Your task to perform on an android device: open device folders in google photos Image 0: 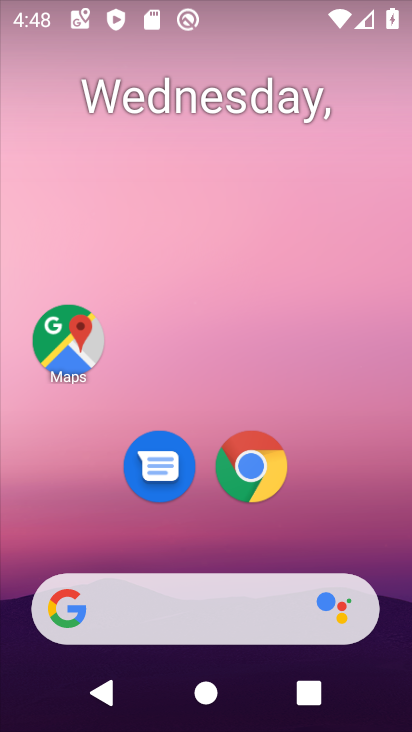
Step 0: drag from (392, 596) to (317, 225)
Your task to perform on an android device: open device folders in google photos Image 1: 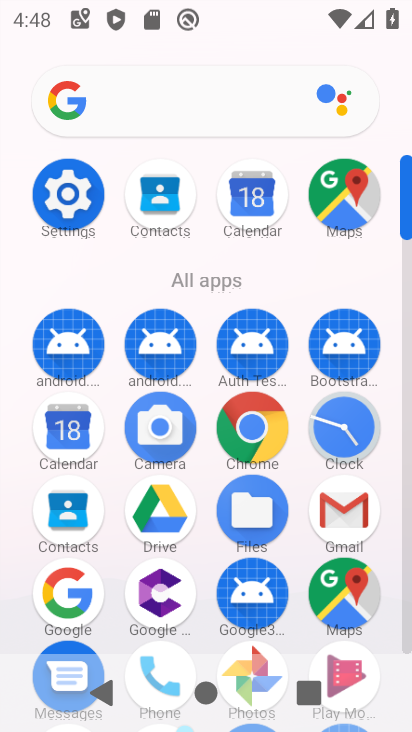
Step 1: click (406, 628)
Your task to perform on an android device: open device folders in google photos Image 2: 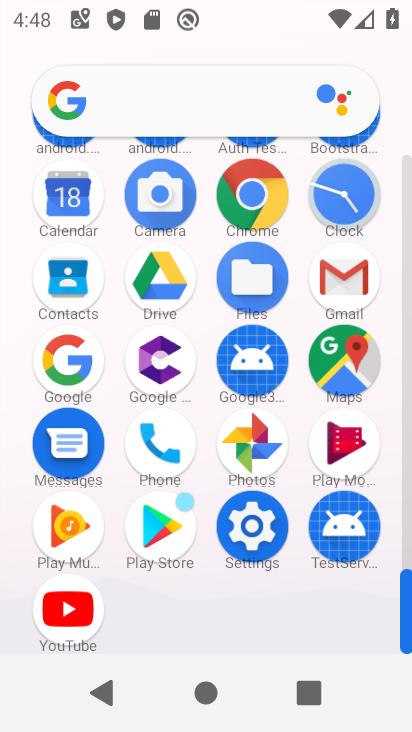
Step 2: click (251, 448)
Your task to perform on an android device: open device folders in google photos Image 3: 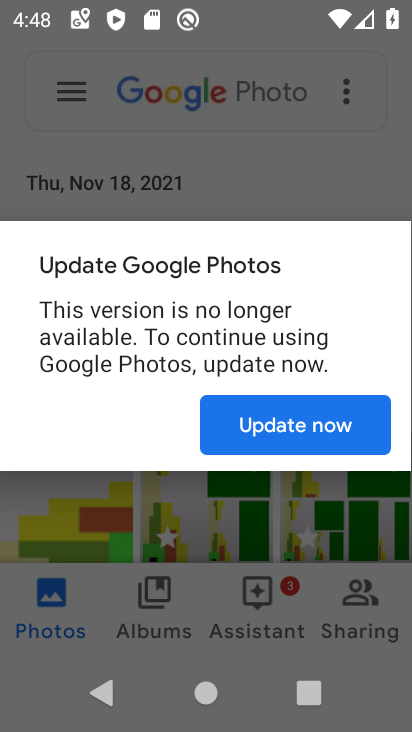
Step 3: click (299, 427)
Your task to perform on an android device: open device folders in google photos Image 4: 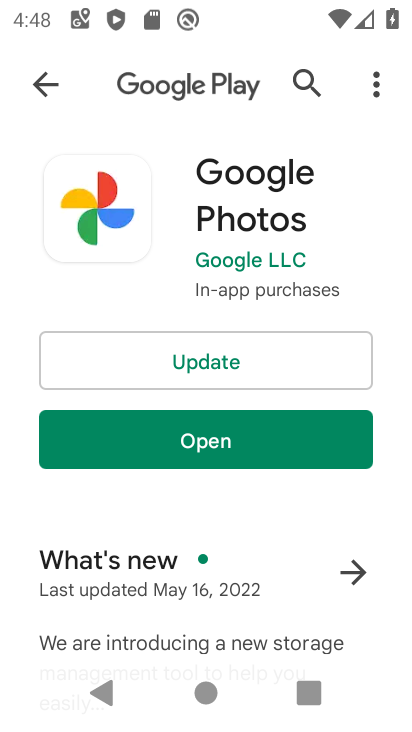
Step 4: click (207, 366)
Your task to perform on an android device: open device folders in google photos Image 5: 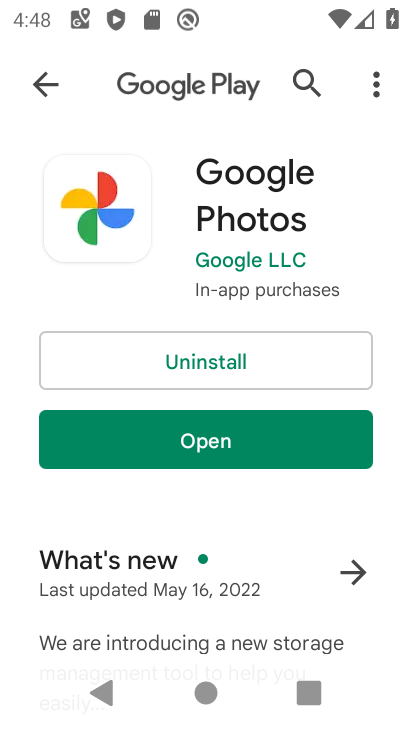
Step 5: click (202, 443)
Your task to perform on an android device: open device folders in google photos Image 6: 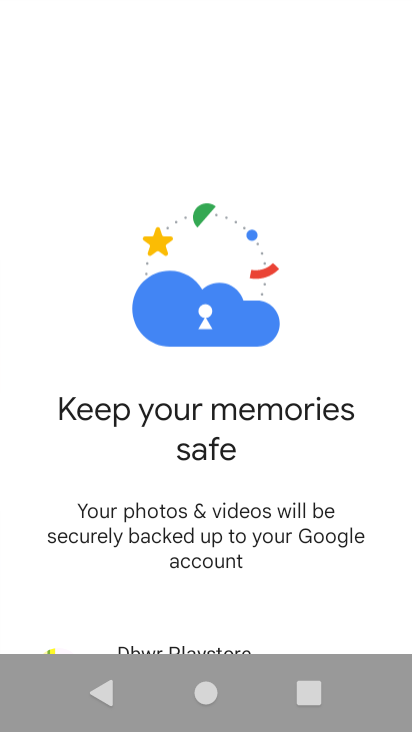
Step 6: drag from (243, 598) to (258, 244)
Your task to perform on an android device: open device folders in google photos Image 7: 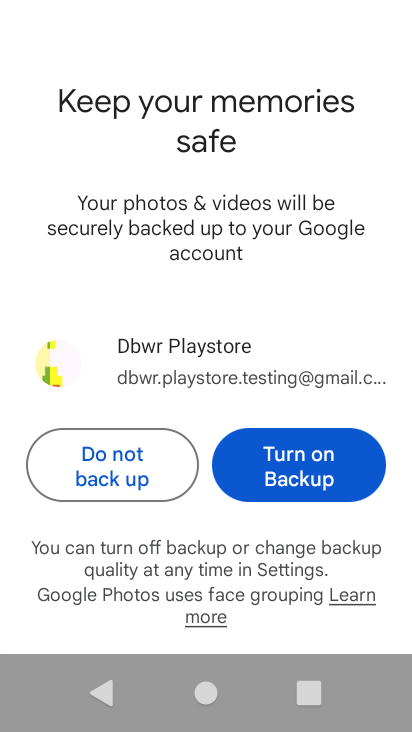
Step 7: click (326, 463)
Your task to perform on an android device: open device folders in google photos Image 8: 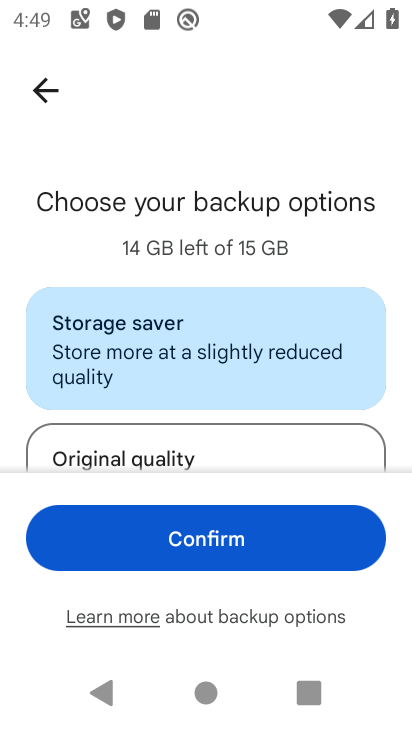
Step 8: click (229, 531)
Your task to perform on an android device: open device folders in google photos Image 9: 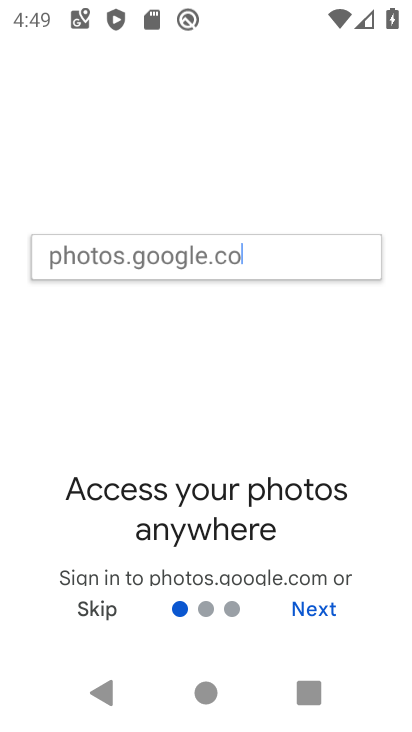
Step 9: click (90, 615)
Your task to perform on an android device: open device folders in google photos Image 10: 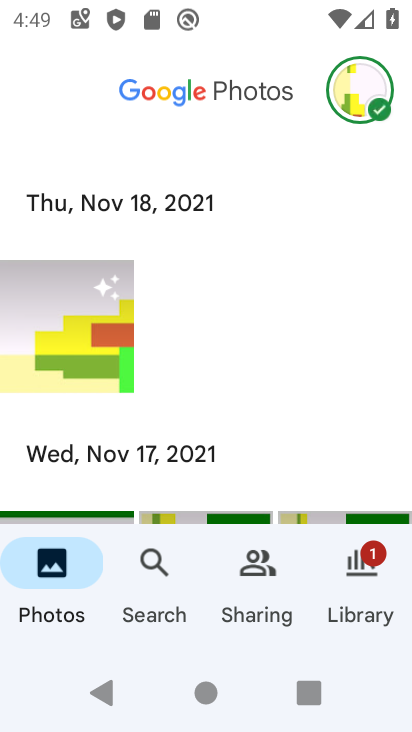
Step 10: click (370, 565)
Your task to perform on an android device: open device folders in google photos Image 11: 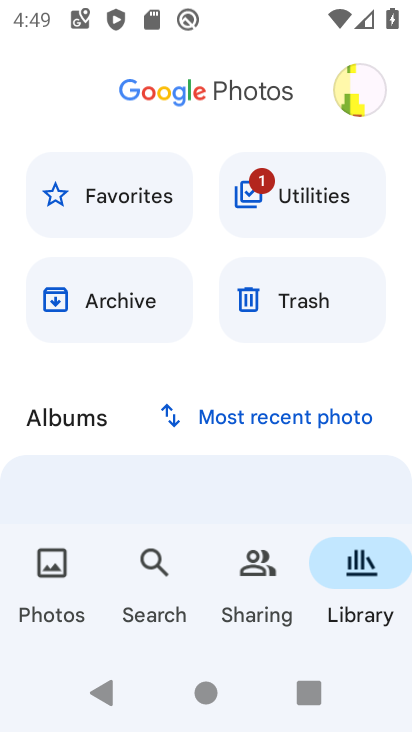
Step 11: task complete